Your task to perform on an android device: Go to display settings Image 0: 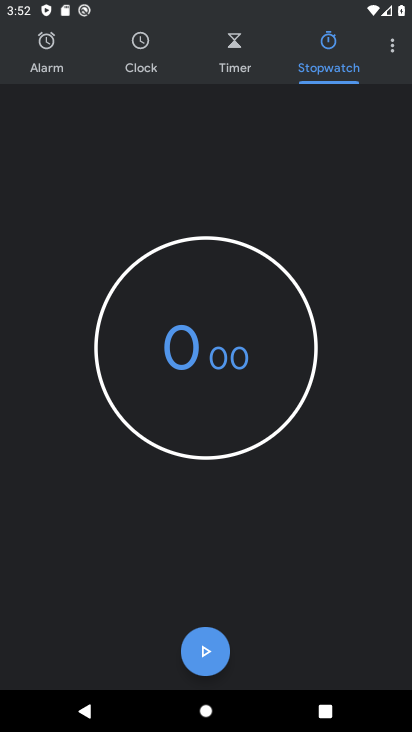
Step 0: press home button
Your task to perform on an android device: Go to display settings Image 1: 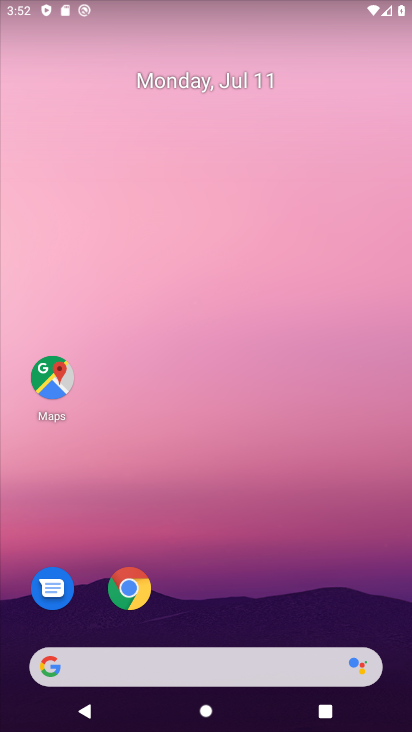
Step 1: drag from (358, 598) to (321, 87)
Your task to perform on an android device: Go to display settings Image 2: 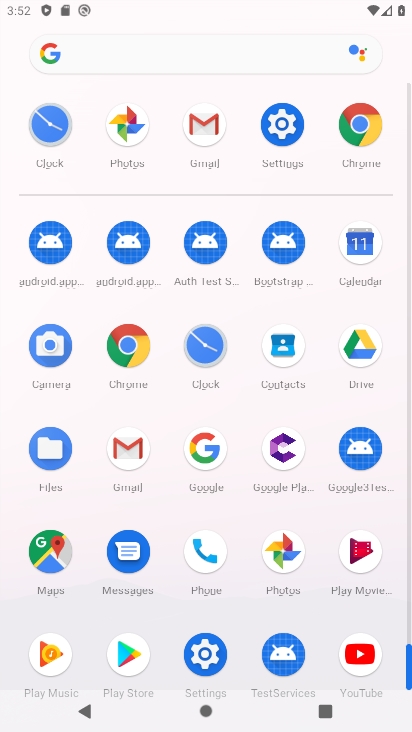
Step 2: click (292, 132)
Your task to perform on an android device: Go to display settings Image 3: 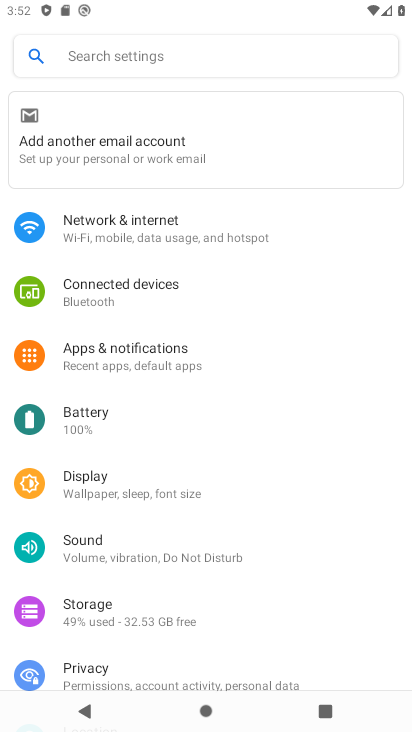
Step 3: drag from (360, 443) to (358, 316)
Your task to perform on an android device: Go to display settings Image 4: 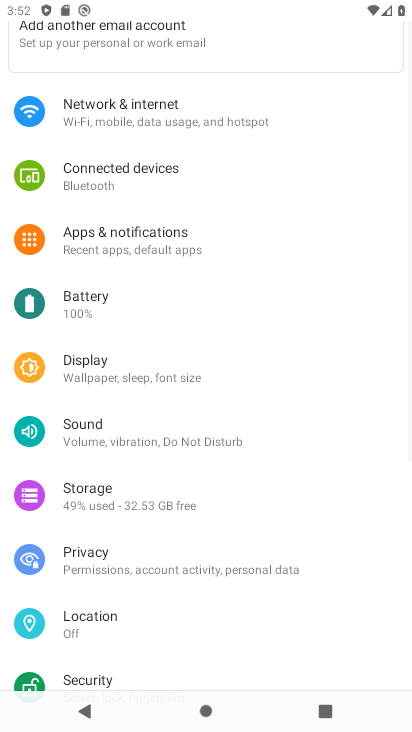
Step 4: drag from (356, 393) to (367, 287)
Your task to perform on an android device: Go to display settings Image 5: 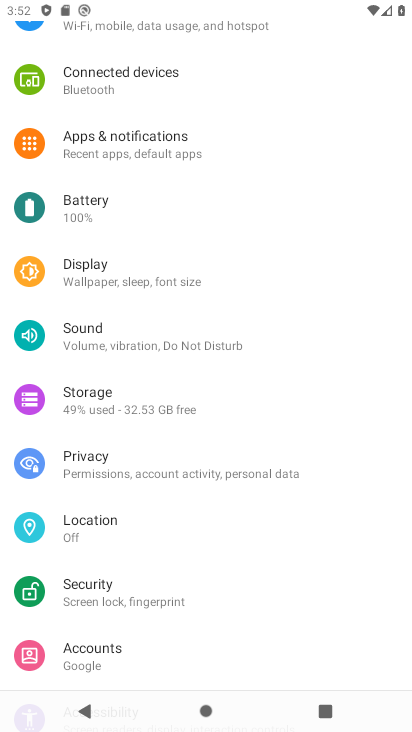
Step 5: drag from (369, 403) to (354, 310)
Your task to perform on an android device: Go to display settings Image 6: 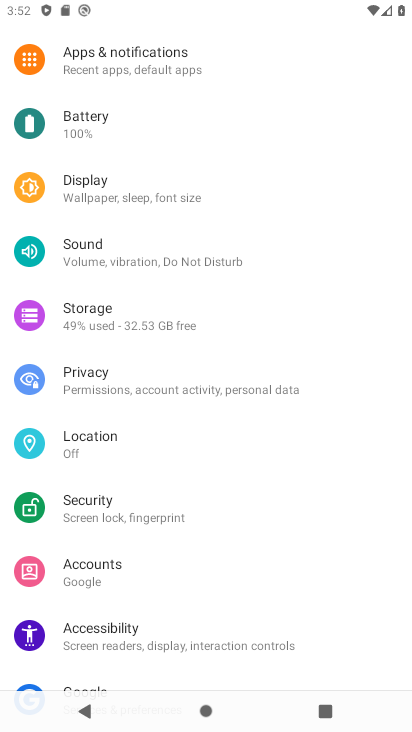
Step 6: drag from (350, 448) to (355, 347)
Your task to perform on an android device: Go to display settings Image 7: 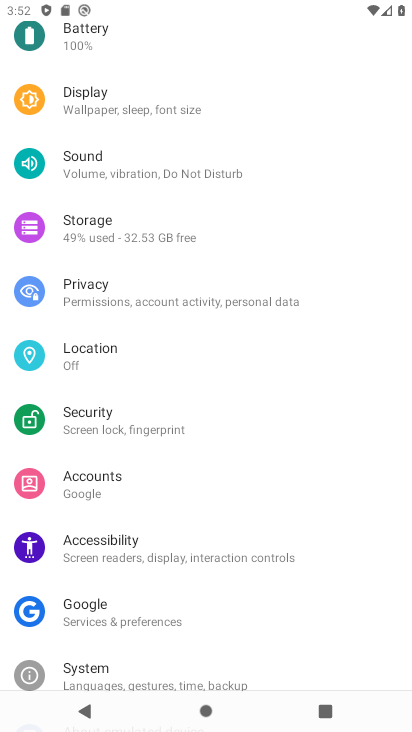
Step 7: drag from (356, 465) to (348, 350)
Your task to perform on an android device: Go to display settings Image 8: 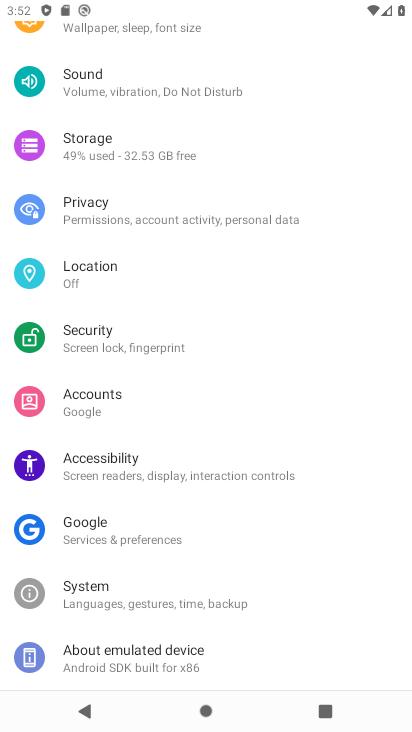
Step 8: drag from (356, 537) to (355, 407)
Your task to perform on an android device: Go to display settings Image 9: 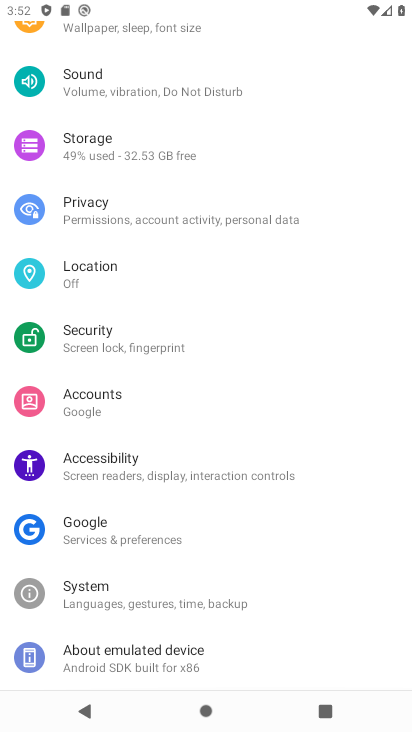
Step 9: drag from (355, 233) to (351, 362)
Your task to perform on an android device: Go to display settings Image 10: 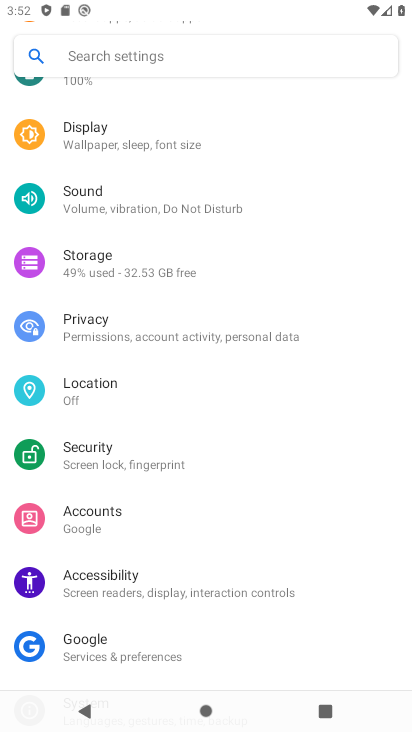
Step 10: drag from (353, 234) to (353, 343)
Your task to perform on an android device: Go to display settings Image 11: 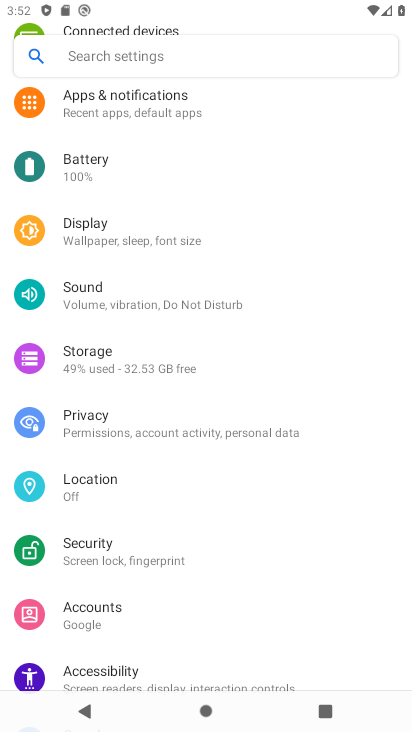
Step 11: drag from (346, 213) to (335, 313)
Your task to perform on an android device: Go to display settings Image 12: 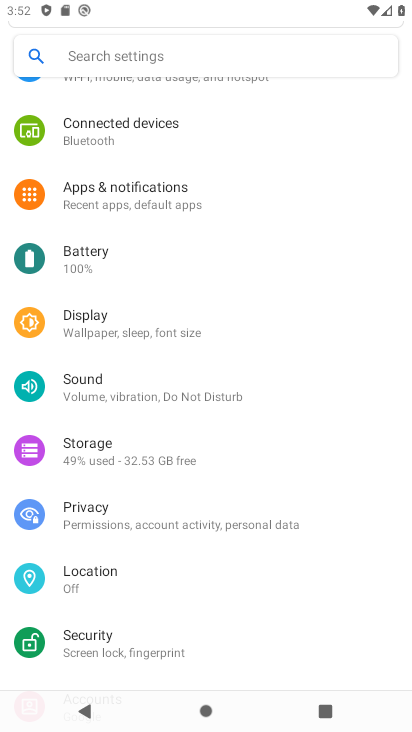
Step 12: click (211, 328)
Your task to perform on an android device: Go to display settings Image 13: 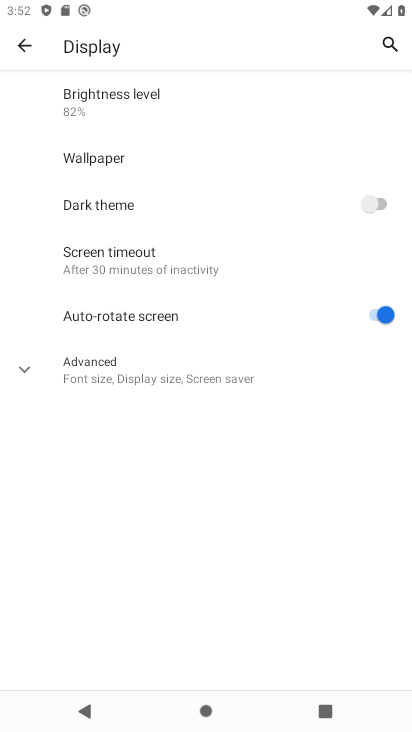
Step 13: task complete